Your task to perform on an android device: Open settings Image 0: 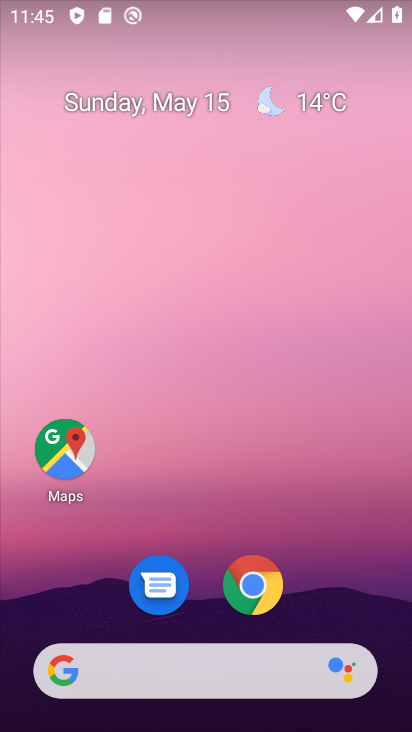
Step 0: drag from (254, 479) to (239, 39)
Your task to perform on an android device: Open settings Image 1: 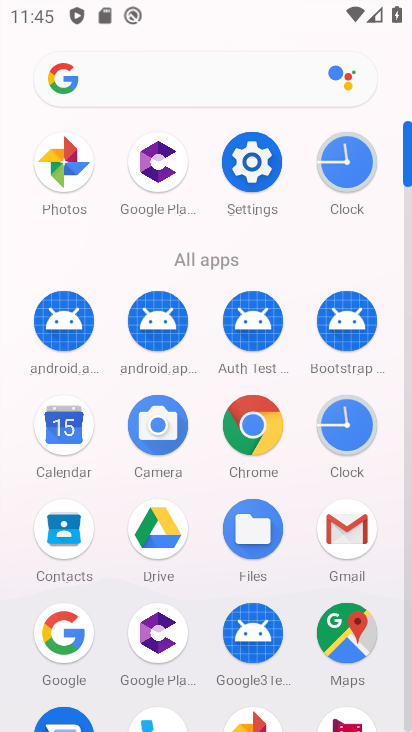
Step 1: click (244, 158)
Your task to perform on an android device: Open settings Image 2: 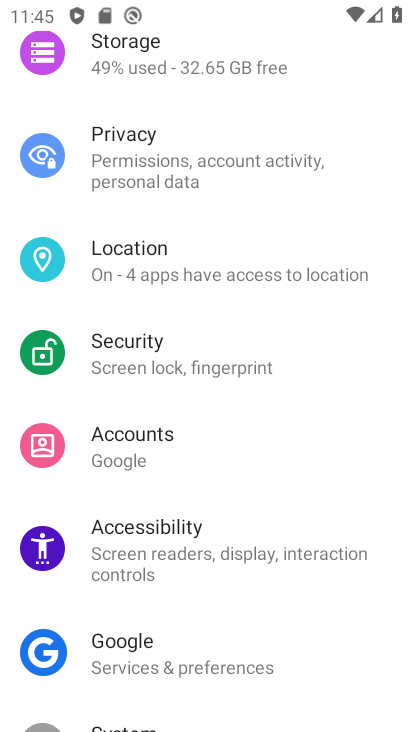
Step 2: task complete